Your task to perform on an android device: Clear the cart on amazon. Search for duracell triple a on amazon, select the first entry, and add it to the cart. Image 0: 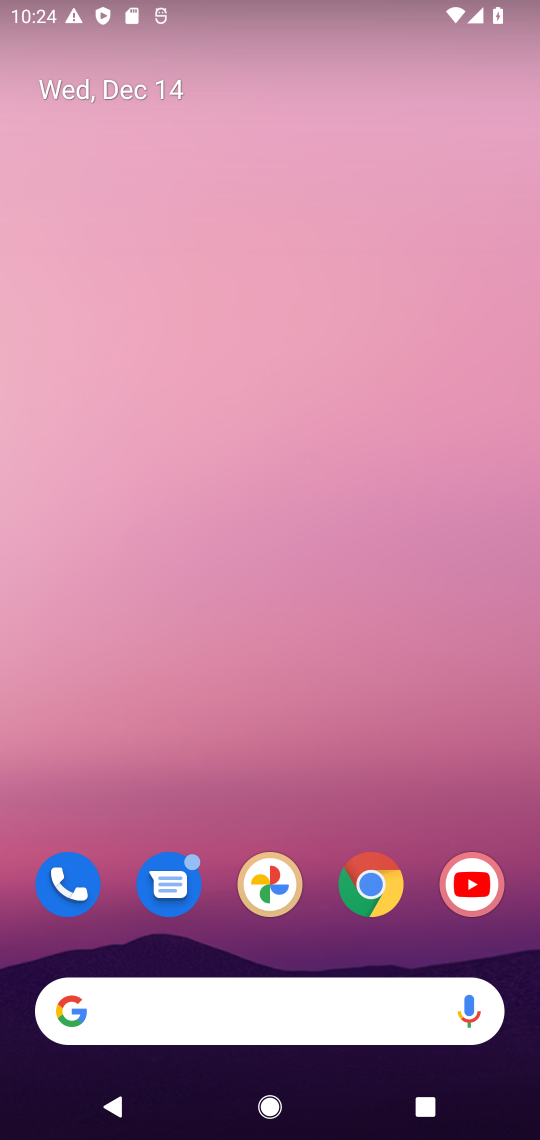
Step 0: click (380, 890)
Your task to perform on an android device: Clear the cart on amazon. Search for duracell triple a on amazon, select the first entry, and add it to the cart. Image 1: 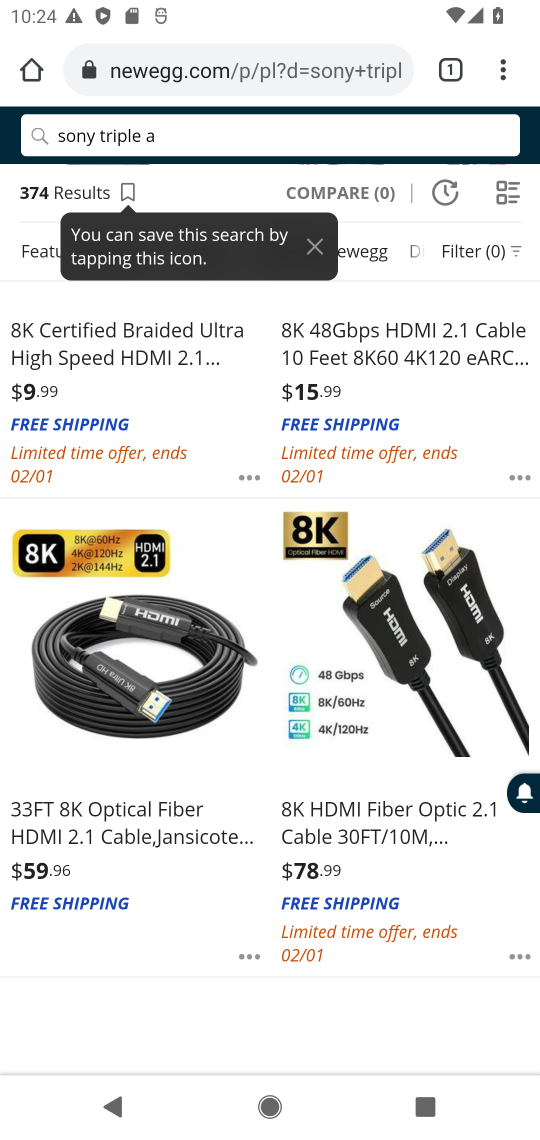
Step 1: click (354, 62)
Your task to perform on an android device: Clear the cart on amazon. Search for duracell triple a on amazon, select the first entry, and add it to the cart. Image 2: 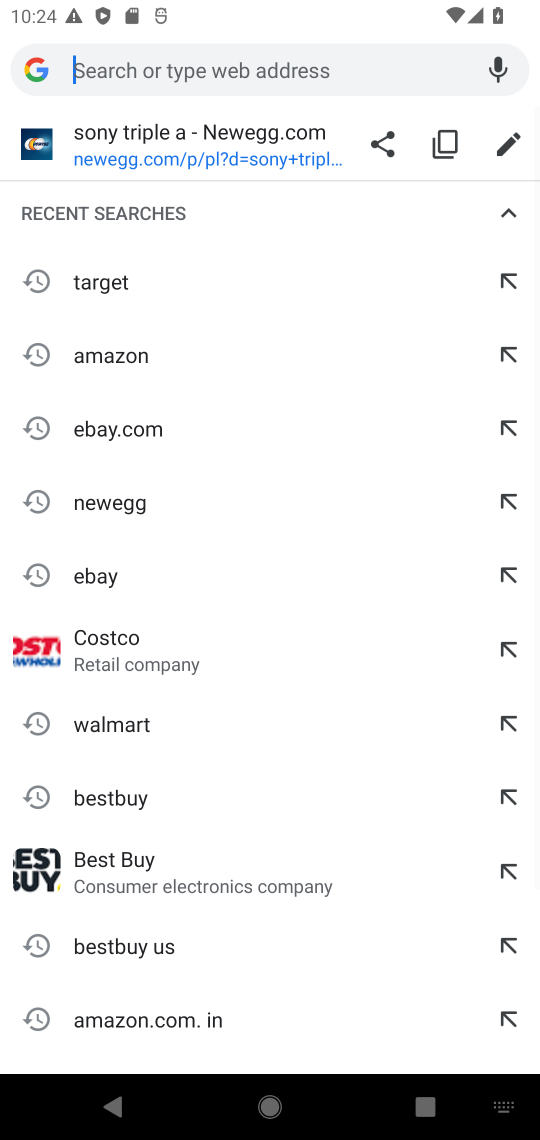
Step 2: click (131, 357)
Your task to perform on an android device: Clear the cart on amazon. Search for duracell triple a on amazon, select the first entry, and add it to the cart. Image 3: 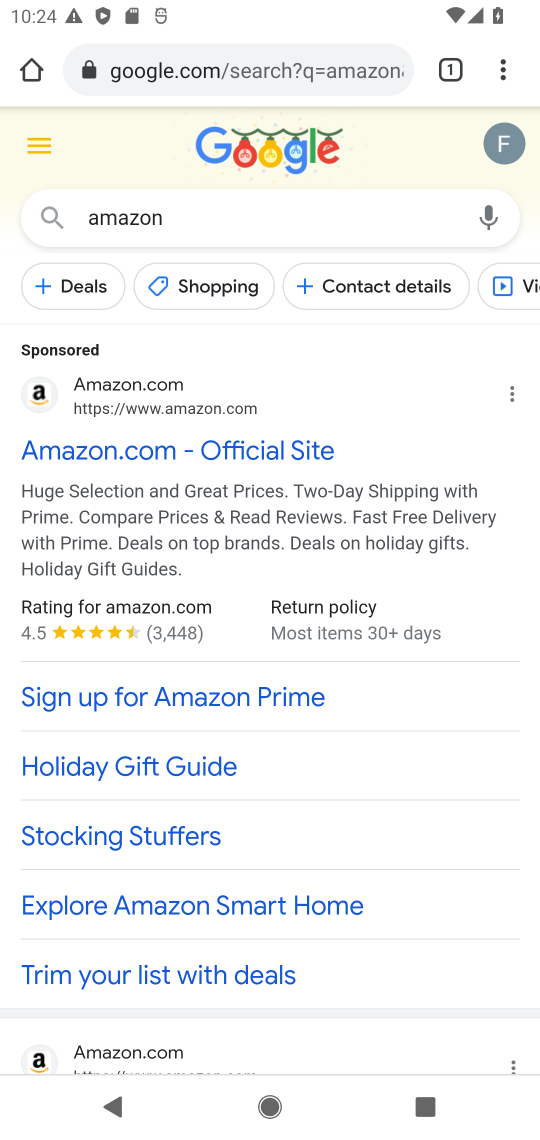
Step 3: drag from (202, 802) to (91, 241)
Your task to perform on an android device: Clear the cart on amazon. Search for duracell triple a on amazon, select the first entry, and add it to the cart. Image 4: 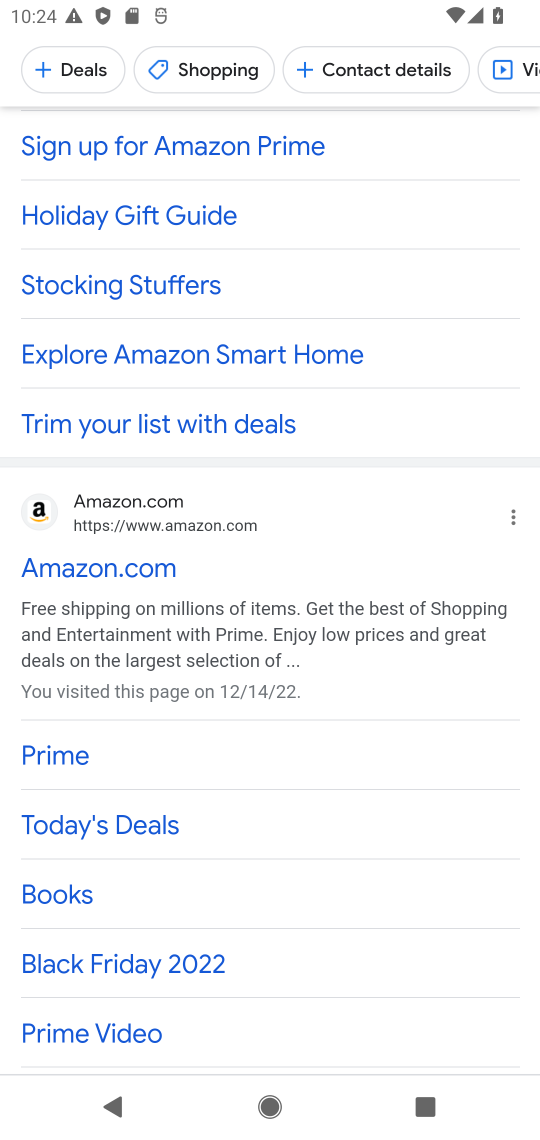
Step 4: click (188, 523)
Your task to perform on an android device: Clear the cart on amazon. Search for duracell triple a on amazon, select the first entry, and add it to the cart. Image 5: 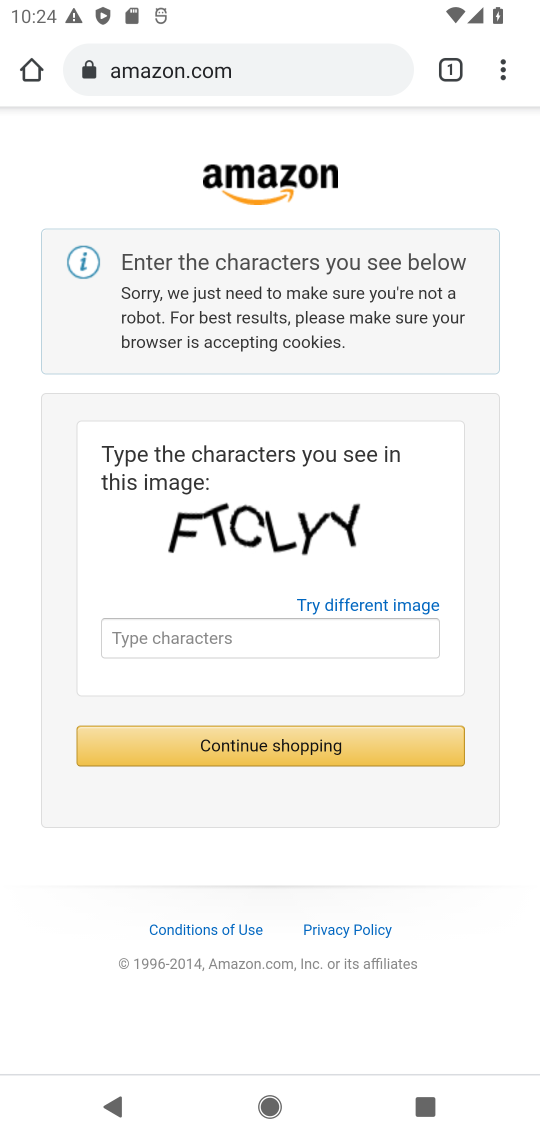
Step 5: press back button
Your task to perform on an android device: Clear the cart on amazon. Search for duracell triple a on amazon, select the first entry, and add it to the cart. Image 6: 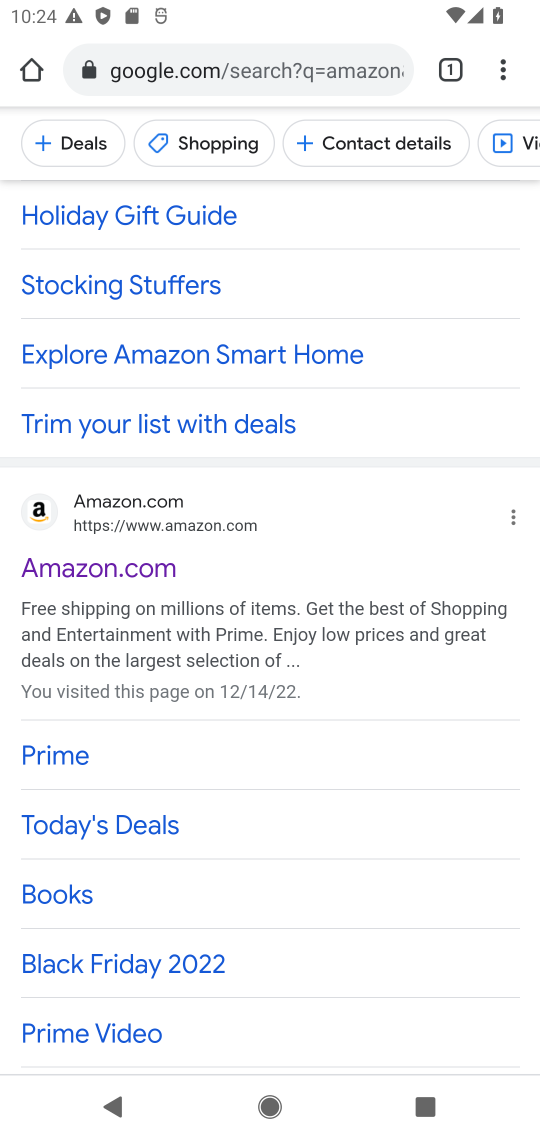
Step 6: drag from (301, 313) to (453, 870)
Your task to perform on an android device: Clear the cart on amazon. Search for duracell triple a on amazon, select the first entry, and add it to the cart. Image 7: 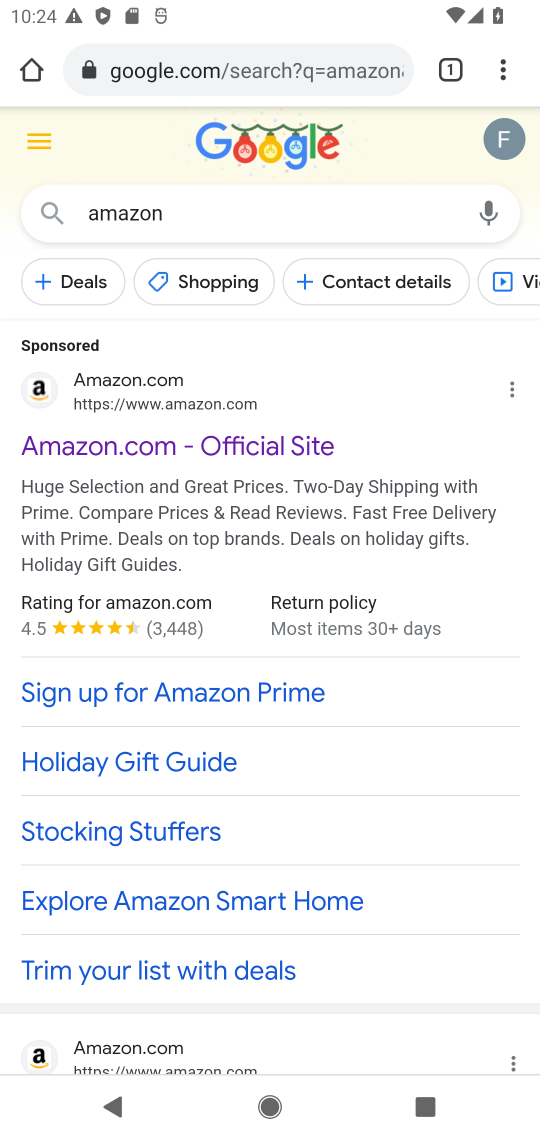
Step 7: click (209, 407)
Your task to perform on an android device: Clear the cart on amazon. Search for duracell triple a on amazon, select the first entry, and add it to the cart. Image 8: 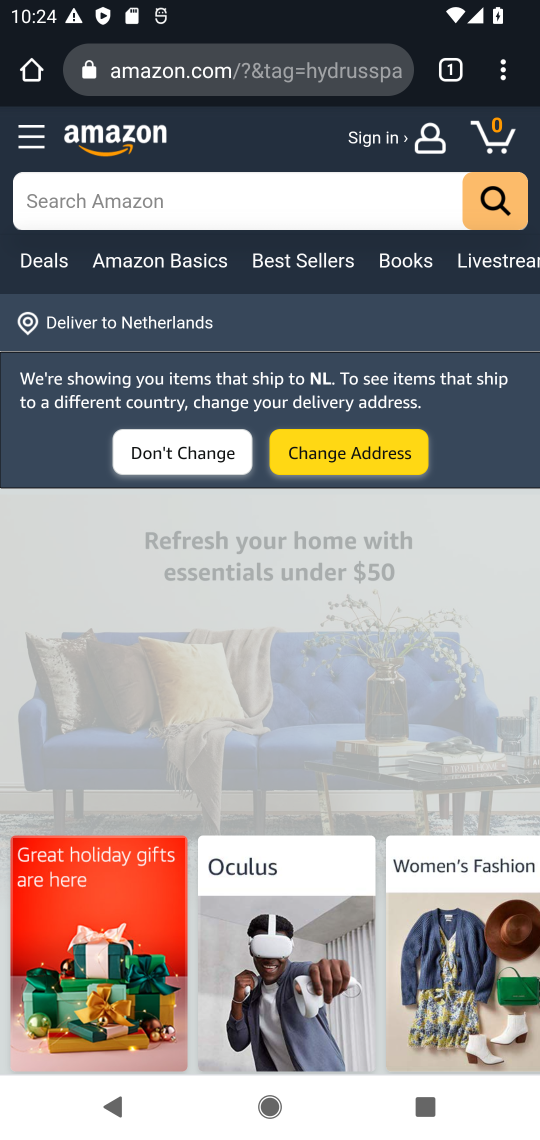
Step 8: click (509, 139)
Your task to perform on an android device: Clear the cart on amazon. Search for duracell triple a on amazon, select the first entry, and add it to the cart. Image 9: 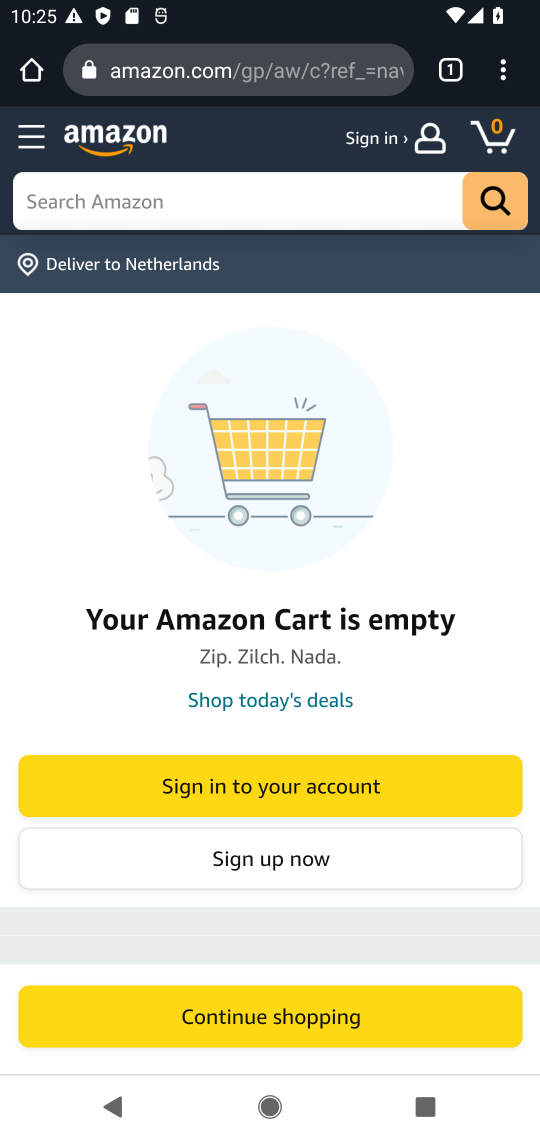
Step 9: click (285, 204)
Your task to perform on an android device: Clear the cart on amazon. Search for duracell triple a on amazon, select the first entry, and add it to the cart. Image 10: 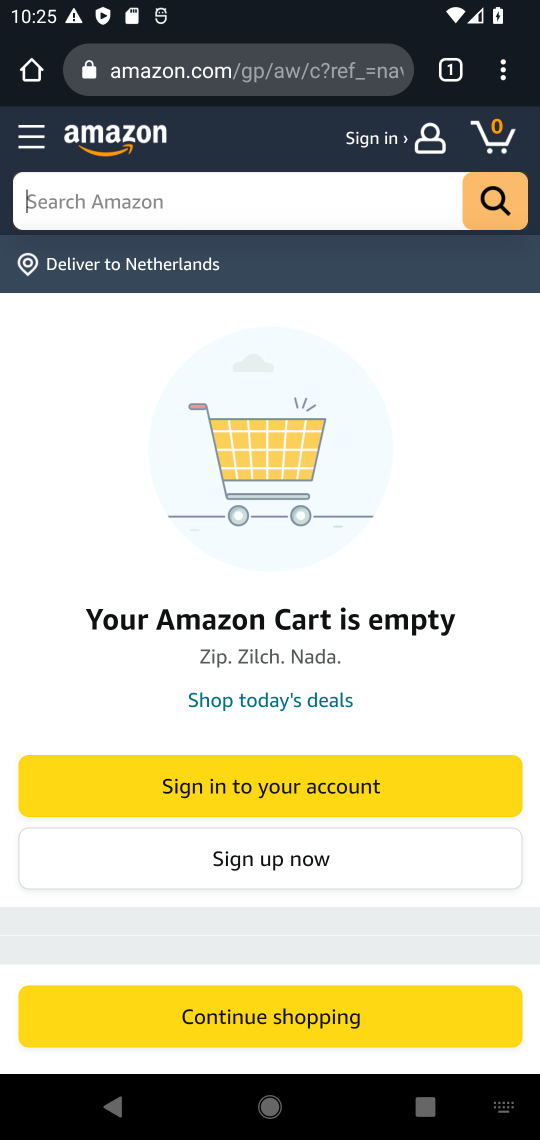
Step 10: press enter
Your task to perform on an android device: Clear the cart on amazon. Search for duracell triple a on amazon, select the first entry, and add it to the cart. Image 11: 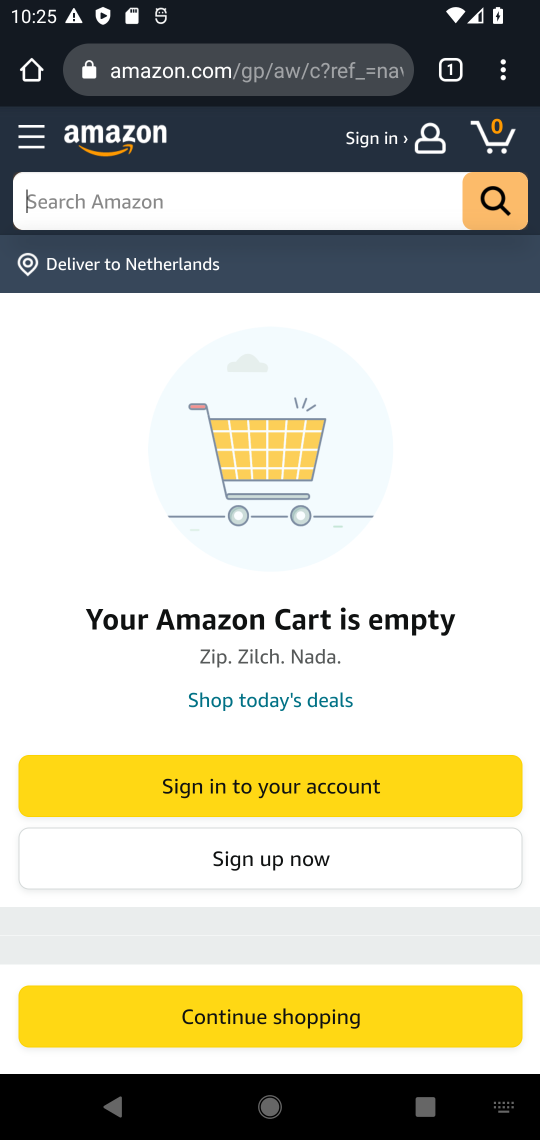
Step 11: type "duracell triple a"
Your task to perform on an android device: Clear the cart on amazon. Search for duracell triple a on amazon, select the first entry, and add it to the cart. Image 12: 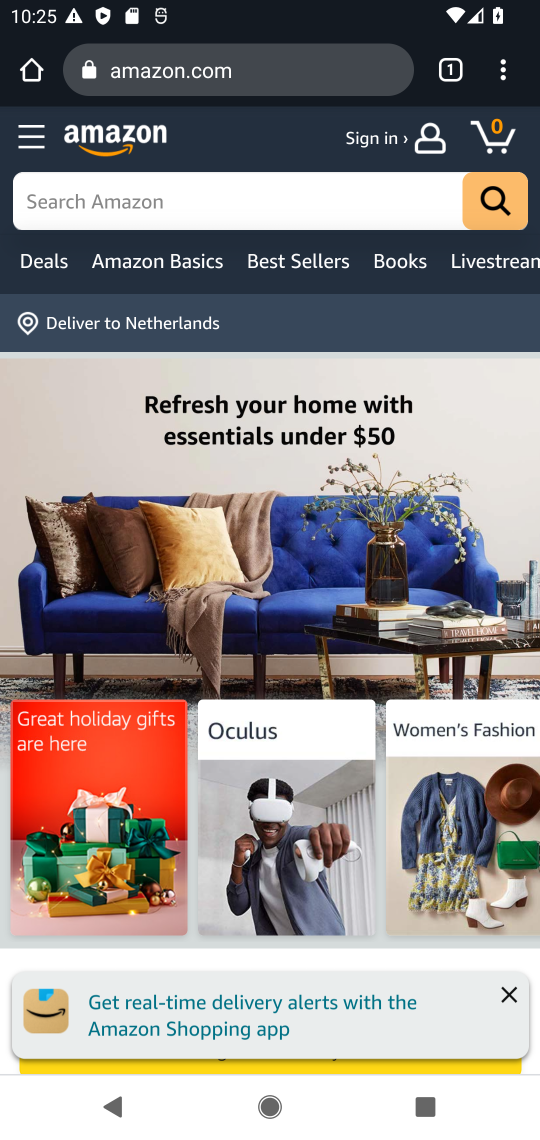
Step 12: click (378, 202)
Your task to perform on an android device: Clear the cart on amazon. Search for duracell triple a on amazon, select the first entry, and add it to the cart. Image 13: 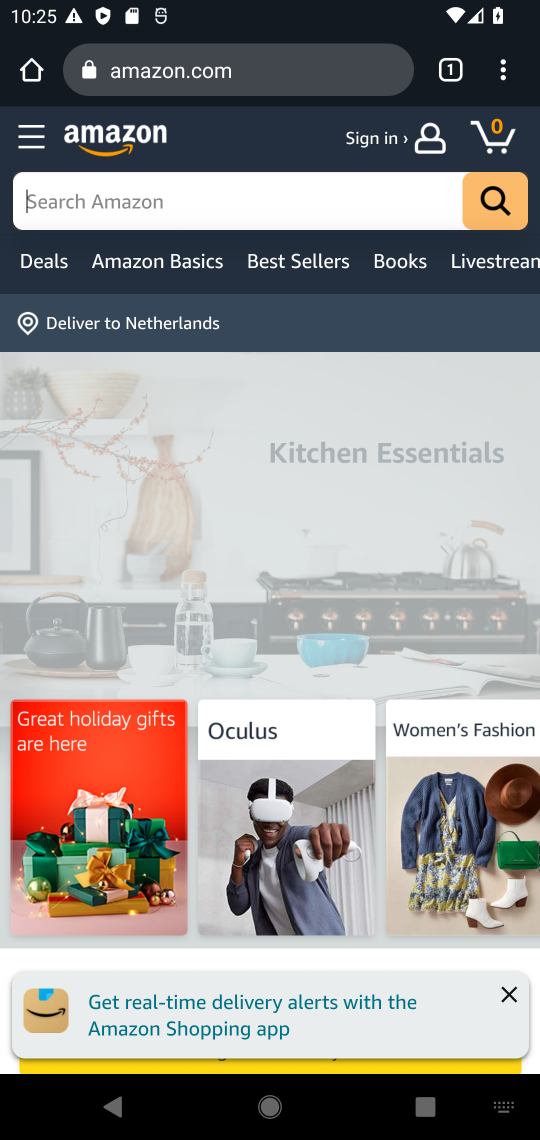
Step 13: press enter
Your task to perform on an android device: Clear the cart on amazon. Search for duracell triple a on amazon, select the first entry, and add it to the cart. Image 14: 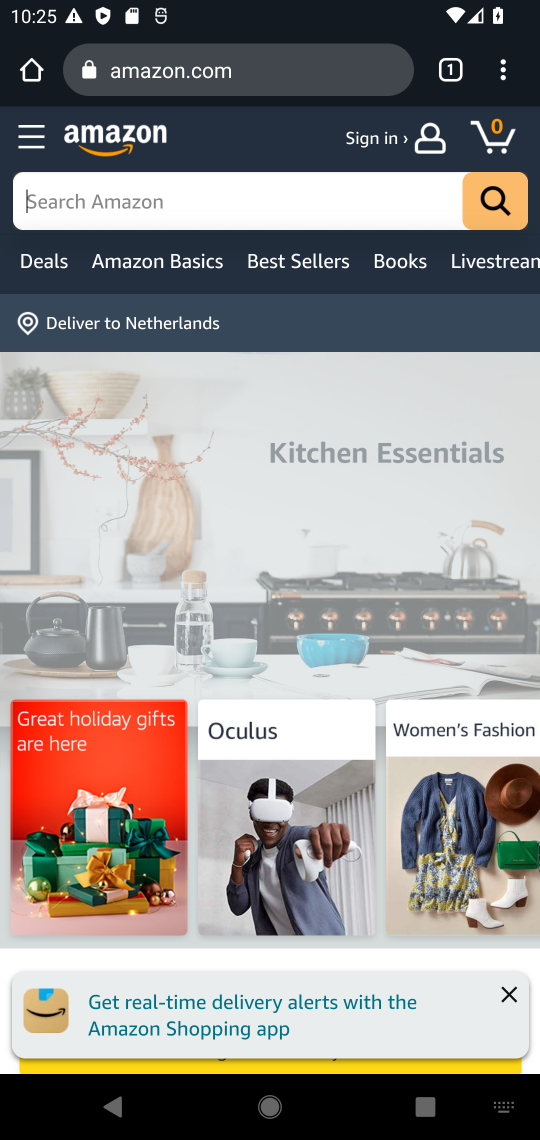
Step 14: type "duracell triple a"
Your task to perform on an android device: Clear the cart on amazon. Search for duracell triple a on amazon, select the first entry, and add it to the cart. Image 15: 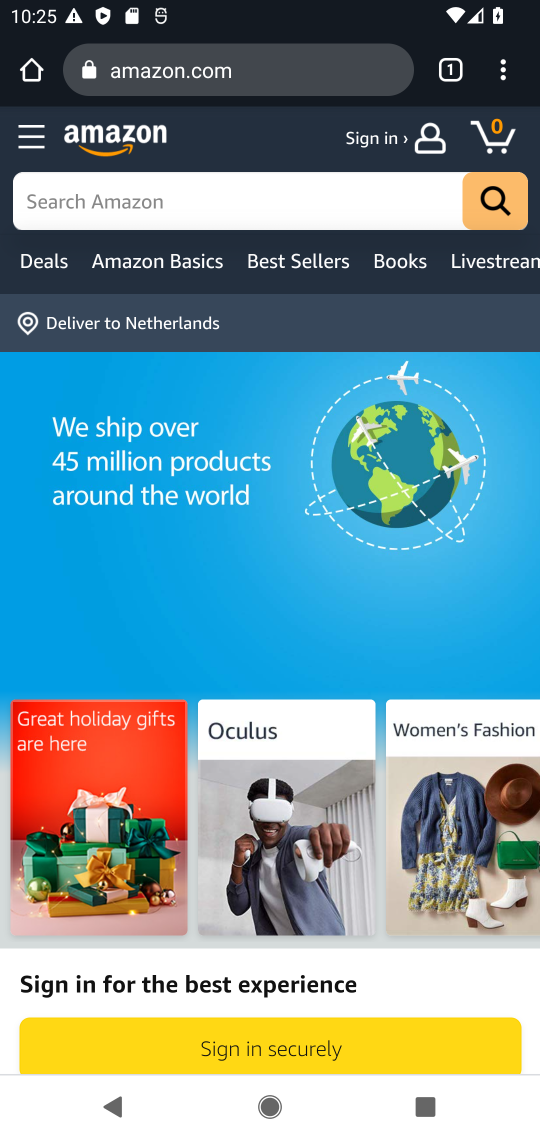
Step 15: click (410, 201)
Your task to perform on an android device: Clear the cart on amazon. Search for duracell triple a on amazon, select the first entry, and add it to the cart. Image 16: 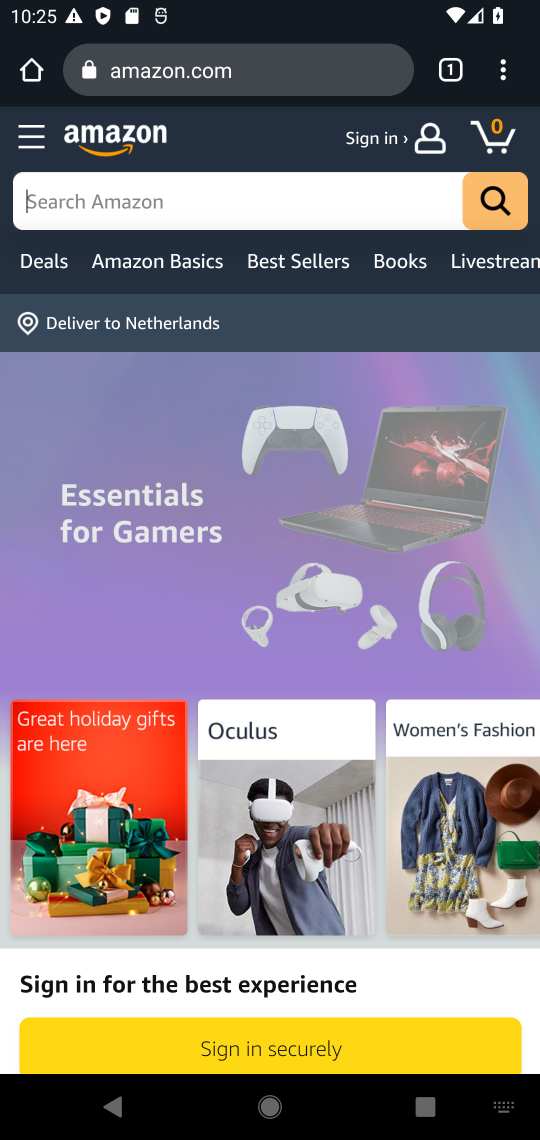
Step 16: press enter
Your task to perform on an android device: Clear the cart on amazon. Search for duracell triple a on amazon, select the first entry, and add it to the cart. Image 17: 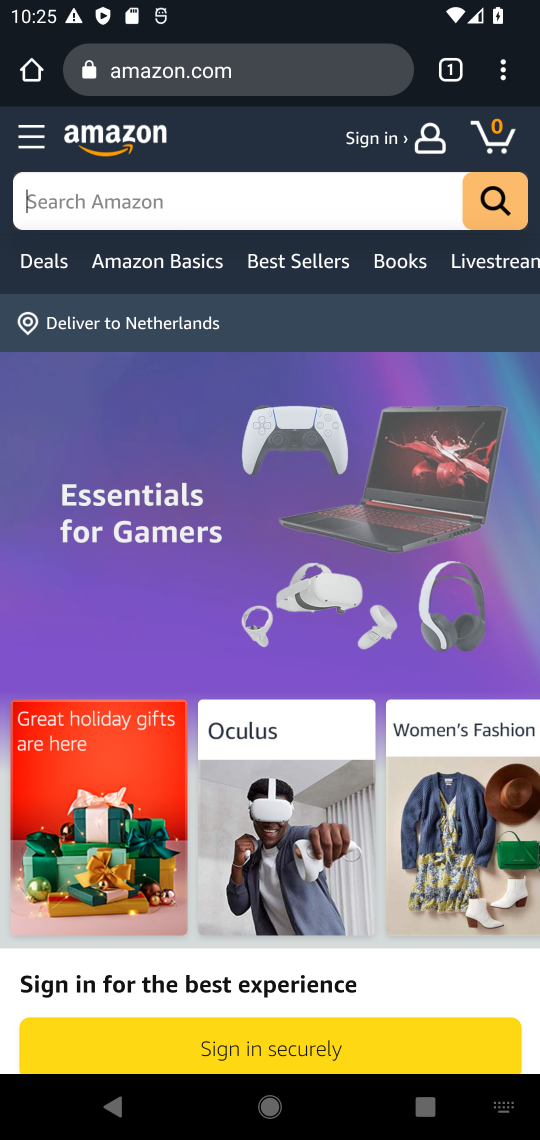
Step 17: type "duracell triple a"
Your task to perform on an android device: Clear the cart on amazon. Search for duracell triple a on amazon, select the first entry, and add it to the cart. Image 18: 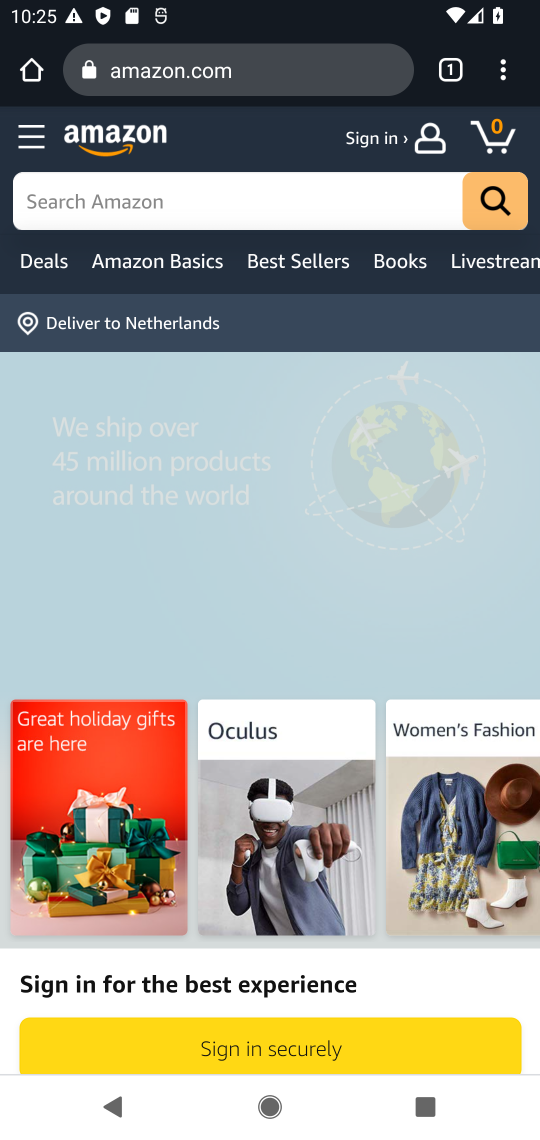
Step 18: click (378, 197)
Your task to perform on an android device: Clear the cart on amazon. Search for duracell triple a on amazon, select the first entry, and add it to the cart. Image 19: 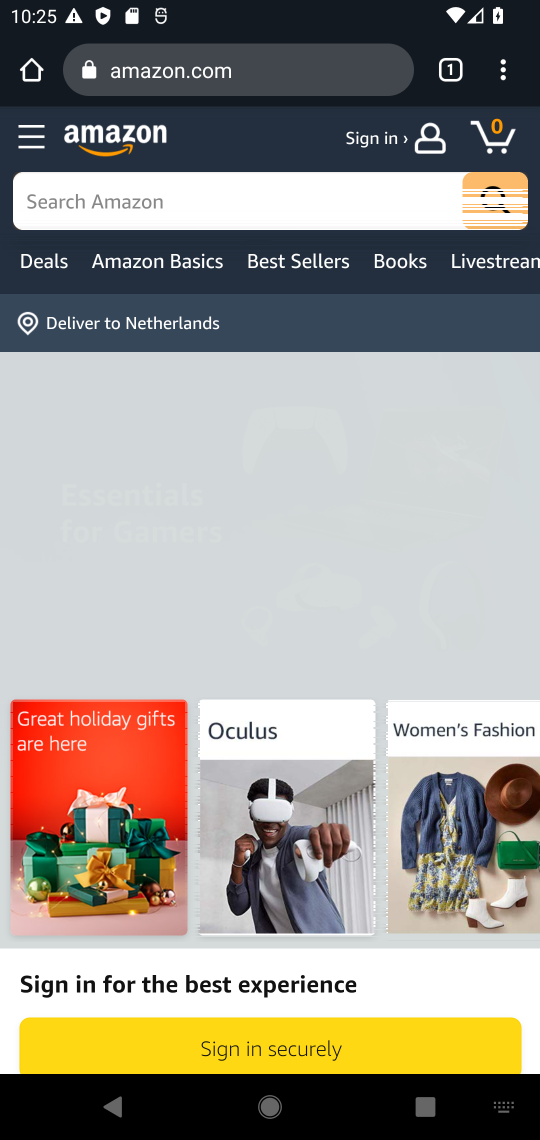
Step 19: press enter
Your task to perform on an android device: Clear the cart on amazon. Search for duracell triple a on amazon, select the first entry, and add it to the cart. Image 20: 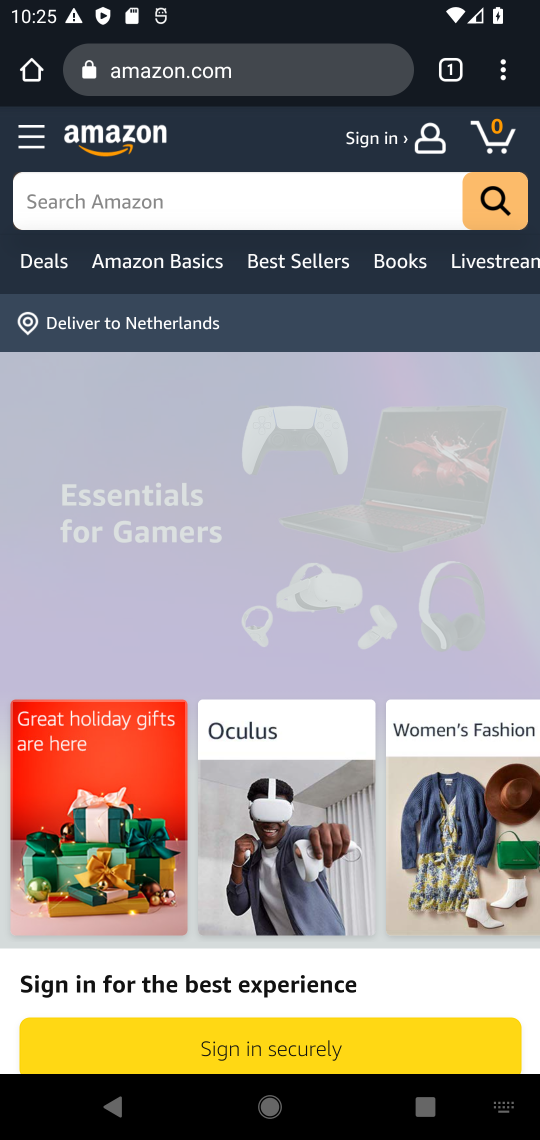
Step 20: type "duracell triple a"
Your task to perform on an android device: Clear the cart on amazon. Search for duracell triple a on amazon, select the first entry, and add it to the cart. Image 21: 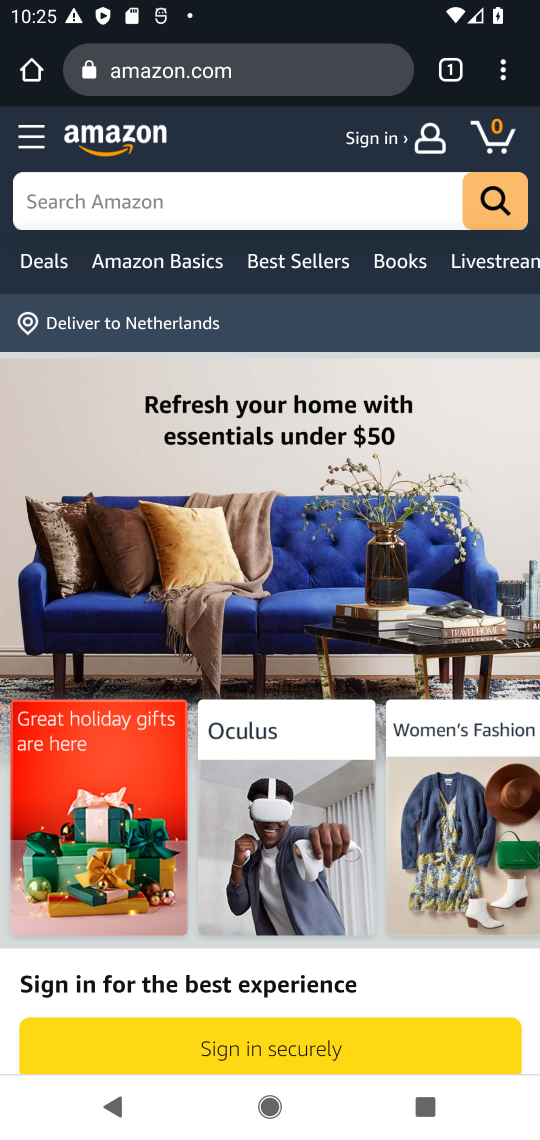
Step 21: task complete